Your task to perform on an android device: turn notification dots off Image 0: 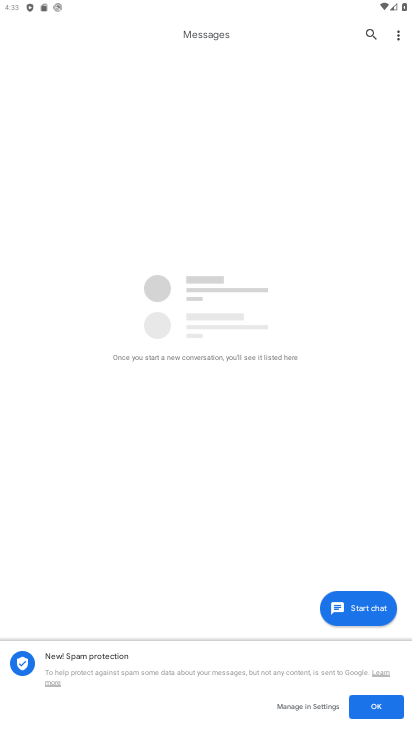
Step 0: press home button
Your task to perform on an android device: turn notification dots off Image 1: 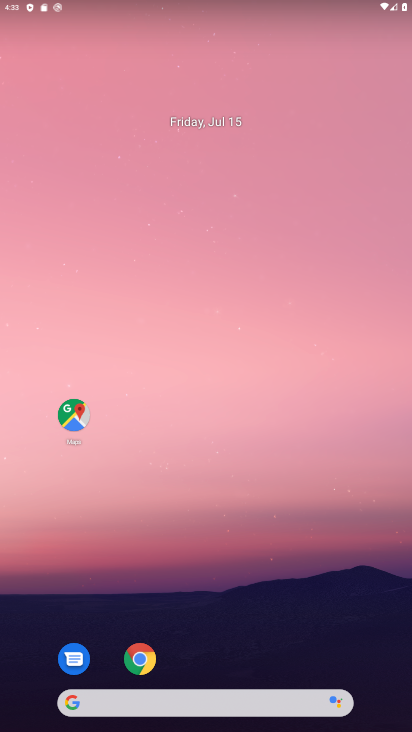
Step 1: drag from (224, 656) to (363, 3)
Your task to perform on an android device: turn notification dots off Image 2: 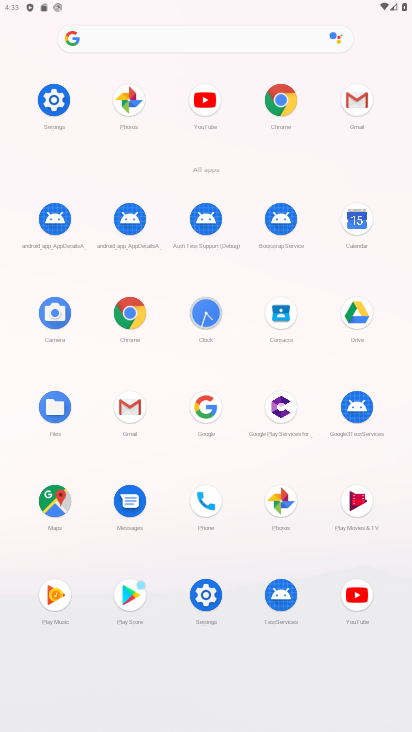
Step 2: click (55, 161)
Your task to perform on an android device: turn notification dots off Image 3: 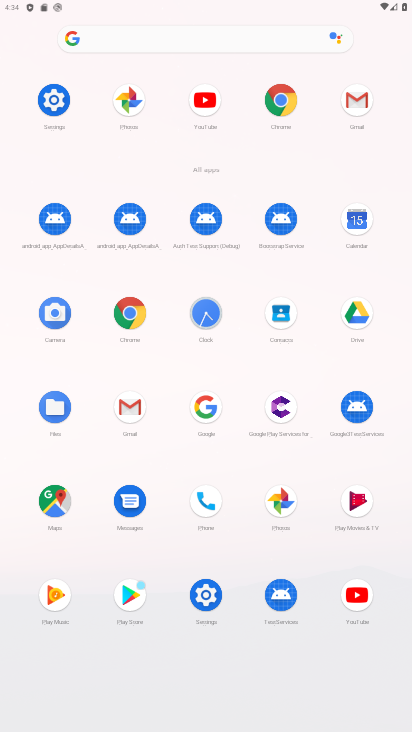
Step 3: click (65, 93)
Your task to perform on an android device: turn notification dots off Image 4: 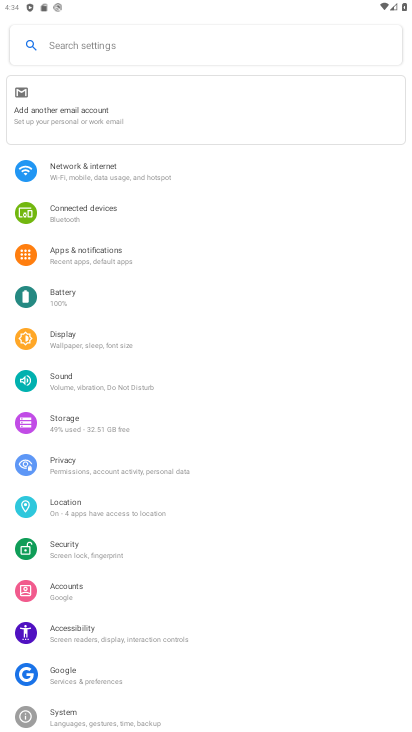
Step 4: click (105, 251)
Your task to perform on an android device: turn notification dots off Image 5: 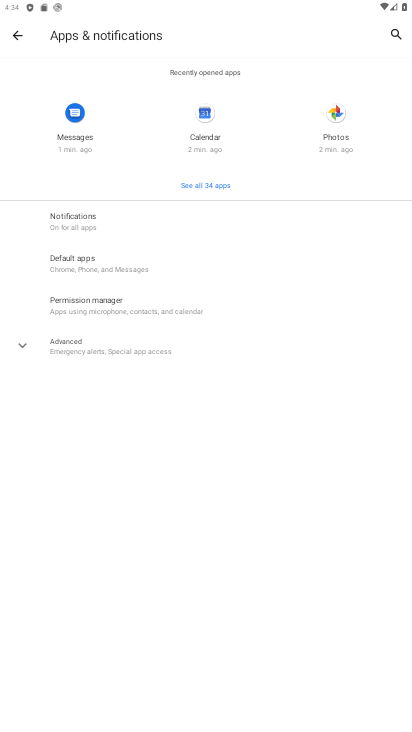
Step 5: click (131, 217)
Your task to perform on an android device: turn notification dots off Image 6: 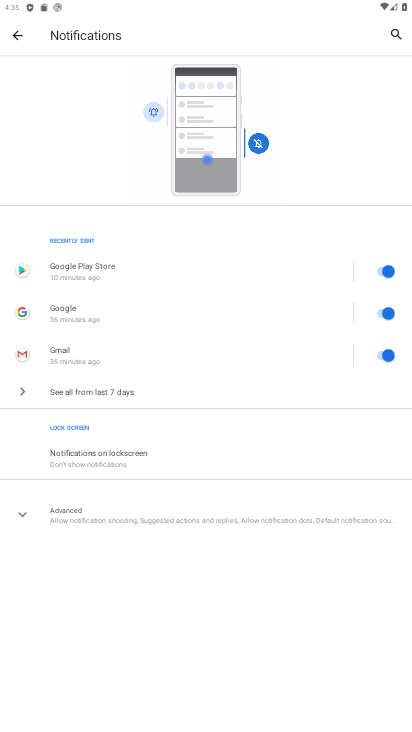
Step 6: click (190, 451)
Your task to perform on an android device: turn notification dots off Image 7: 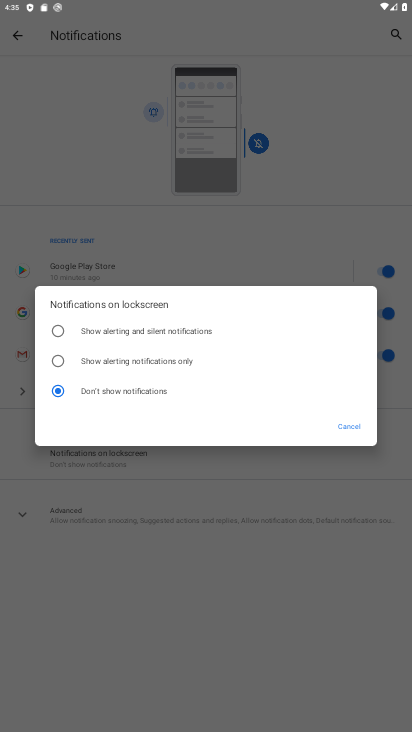
Step 7: click (354, 432)
Your task to perform on an android device: turn notification dots off Image 8: 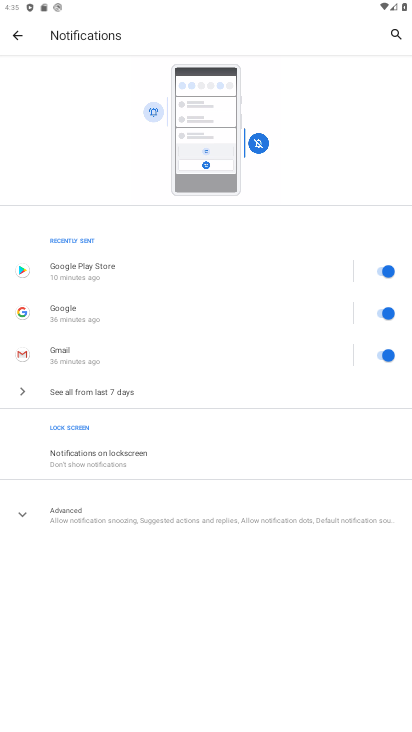
Step 8: click (238, 467)
Your task to perform on an android device: turn notification dots off Image 9: 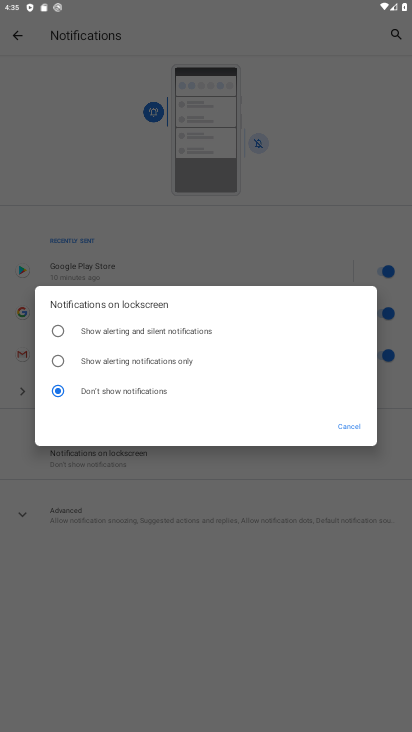
Step 9: click (146, 513)
Your task to perform on an android device: turn notification dots off Image 10: 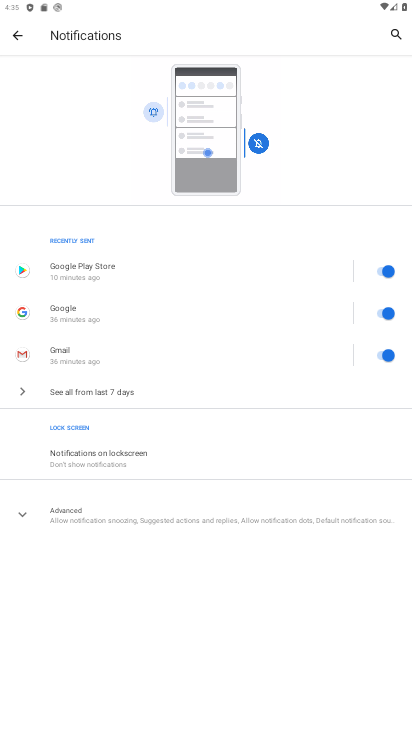
Step 10: click (156, 518)
Your task to perform on an android device: turn notification dots off Image 11: 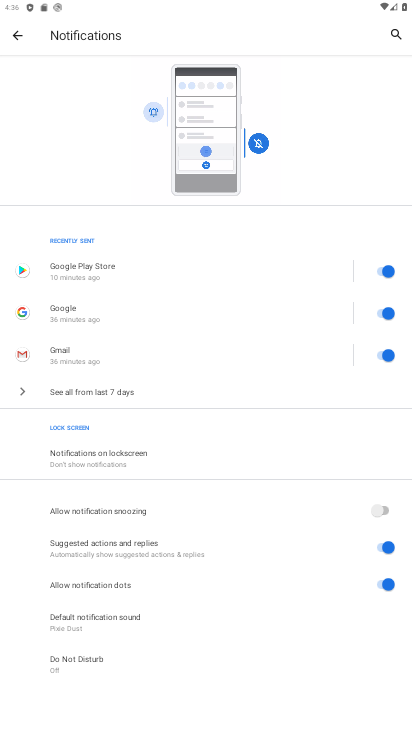
Step 11: click (384, 580)
Your task to perform on an android device: turn notification dots off Image 12: 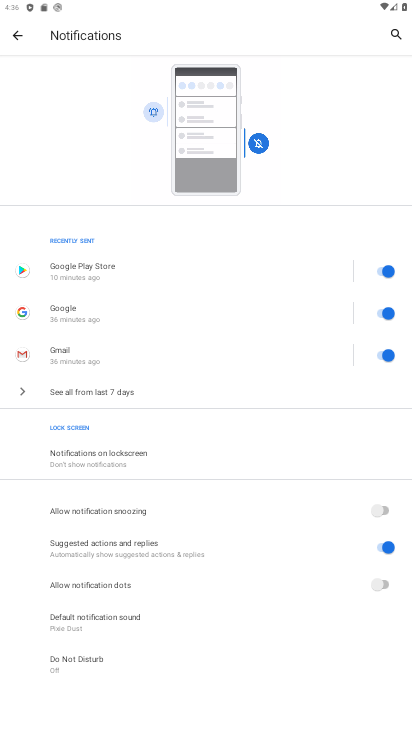
Step 12: task complete